Your task to perform on an android device: Open Maps and search for coffee Image 0: 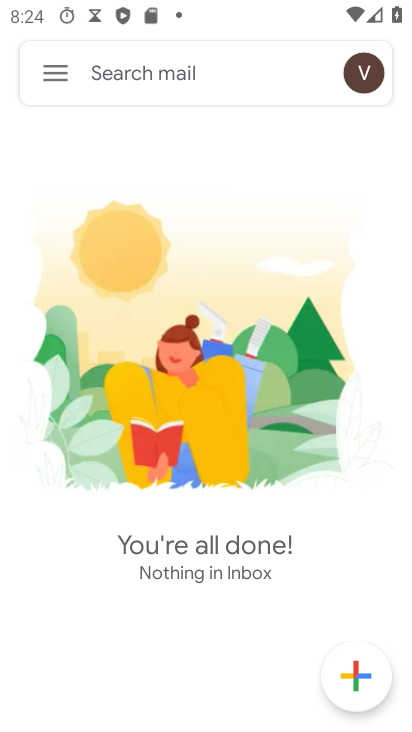
Step 0: press home button
Your task to perform on an android device: Open Maps and search for coffee Image 1: 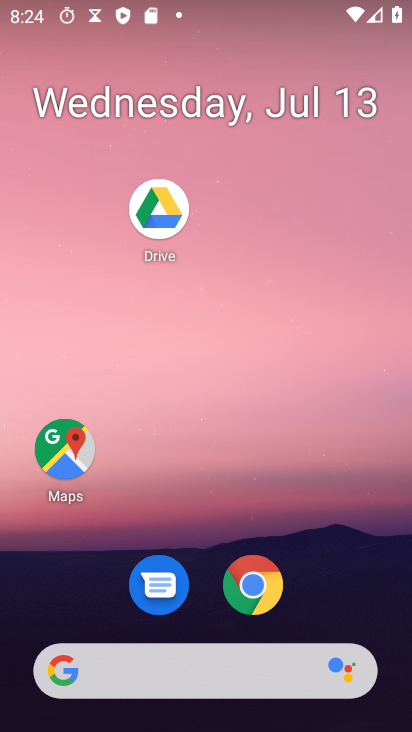
Step 1: click (60, 457)
Your task to perform on an android device: Open Maps and search for coffee Image 2: 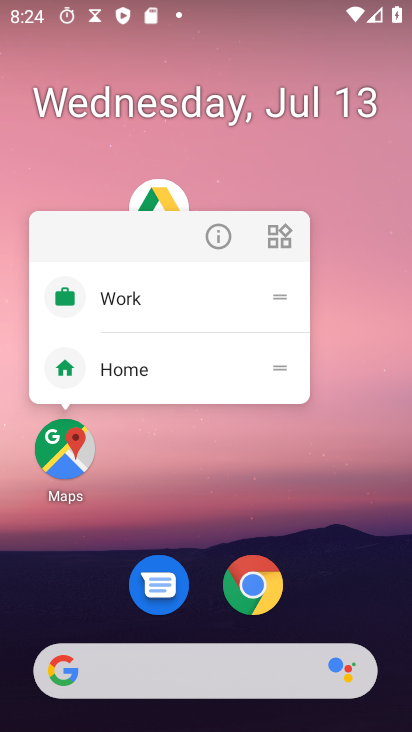
Step 2: click (63, 450)
Your task to perform on an android device: Open Maps and search for coffee Image 3: 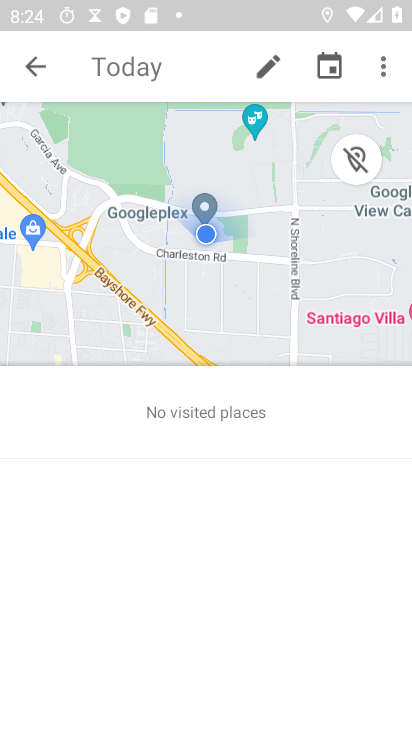
Step 3: click (47, 63)
Your task to perform on an android device: Open Maps and search for coffee Image 4: 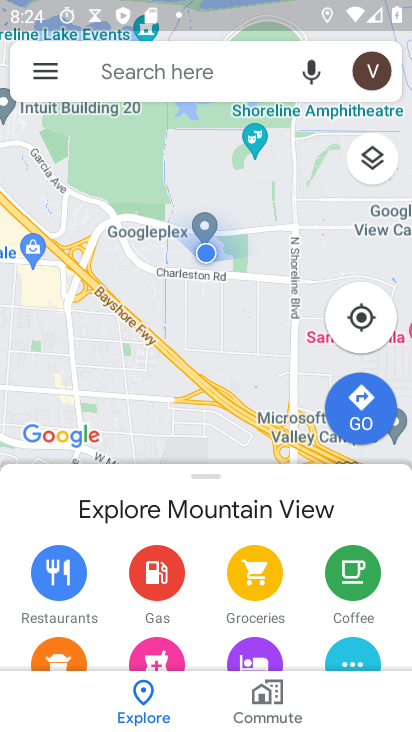
Step 4: click (143, 62)
Your task to perform on an android device: Open Maps and search for coffee Image 5: 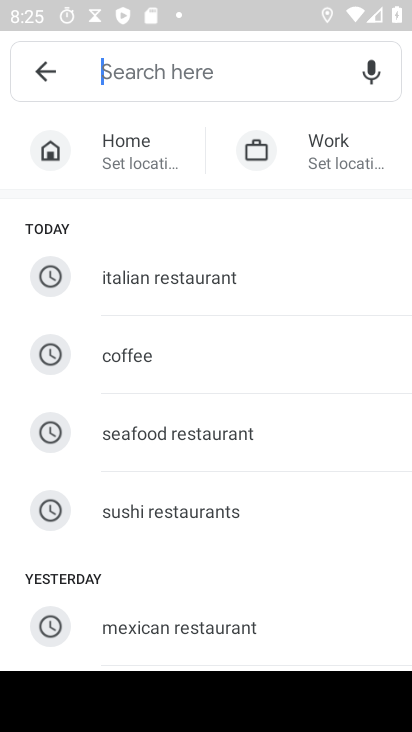
Step 5: click (119, 356)
Your task to perform on an android device: Open Maps and search for coffee Image 6: 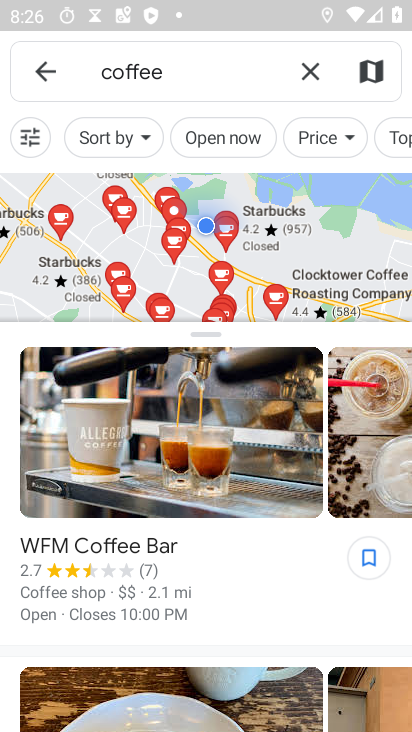
Step 6: task complete